Your task to perform on an android device: change alarm snooze length Image 0: 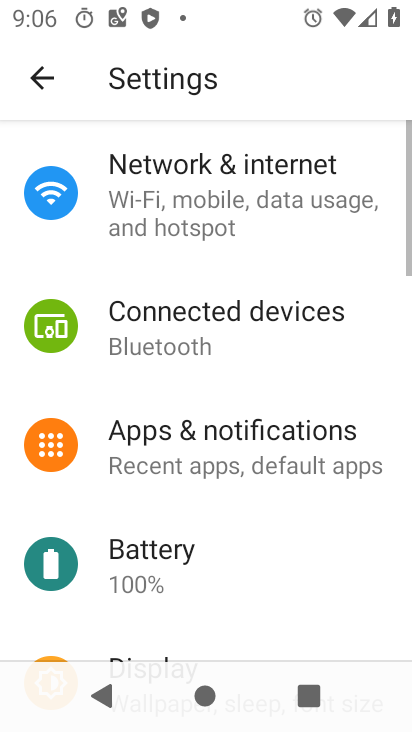
Step 0: press home button
Your task to perform on an android device: change alarm snooze length Image 1: 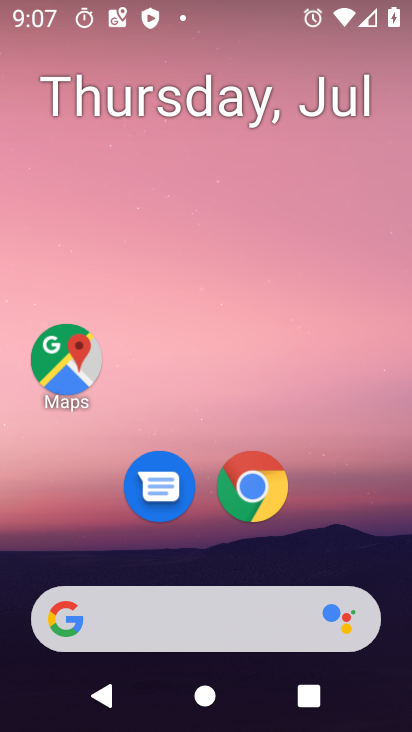
Step 1: drag from (159, 625) to (154, 175)
Your task to perform on an android device: change alarm snooze length Image 2: 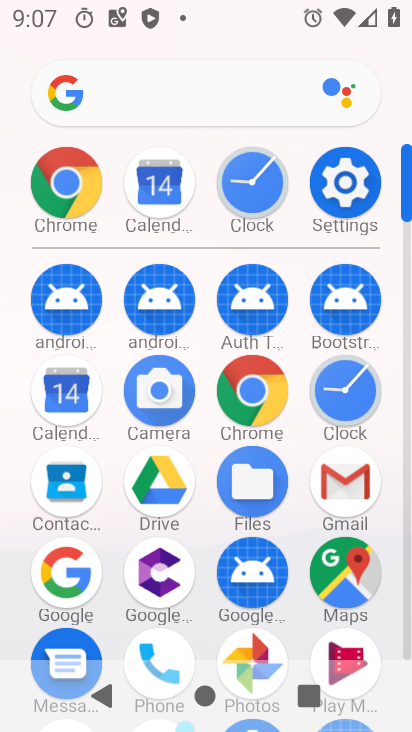
Step 2: click (351, 406)
Your task to perform on an android device: change alarm snooze length Image 3: 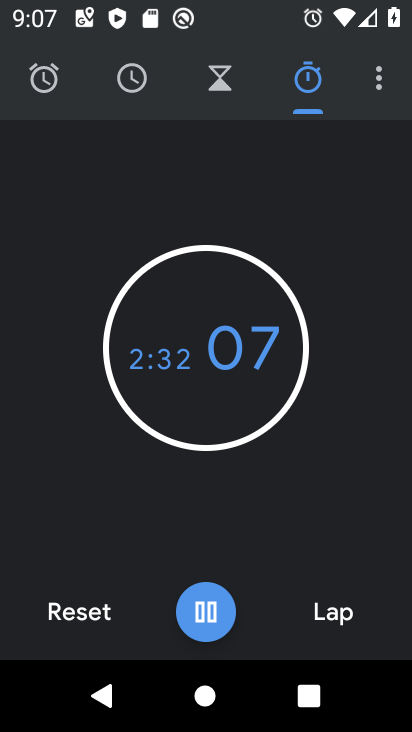
Step 3: click (368, 80)
Your task to perform on an android device: change alarm snooze length Image 4: 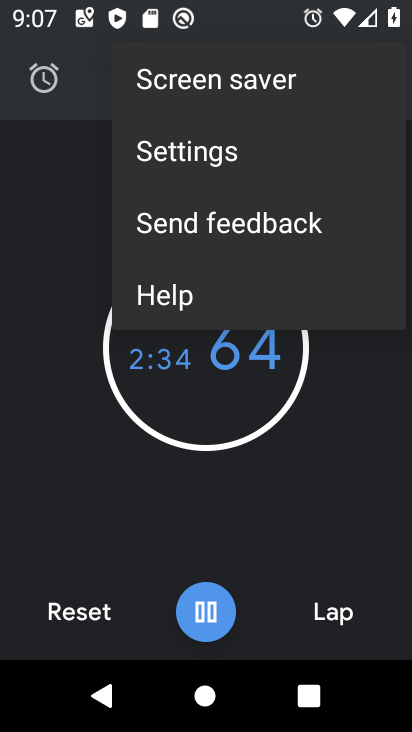
Step 4: click (199, 163)
Your task to perform on an android device: change alarm snooze length Image 5: 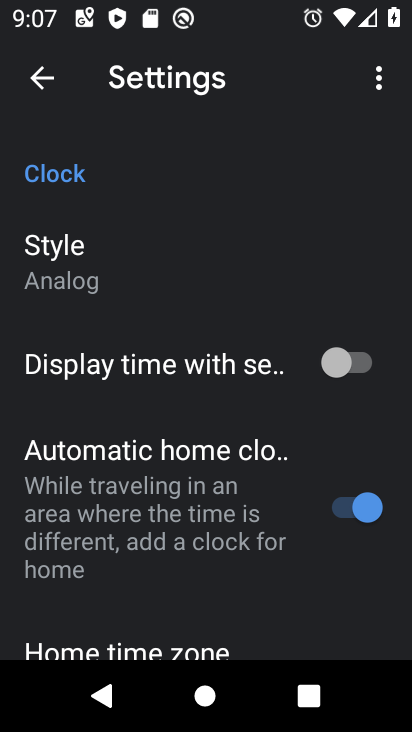
Step 5: drag from (147, 539) to (184, 294)
Your task to perform on an android device: change alarm snooze length Image 6: 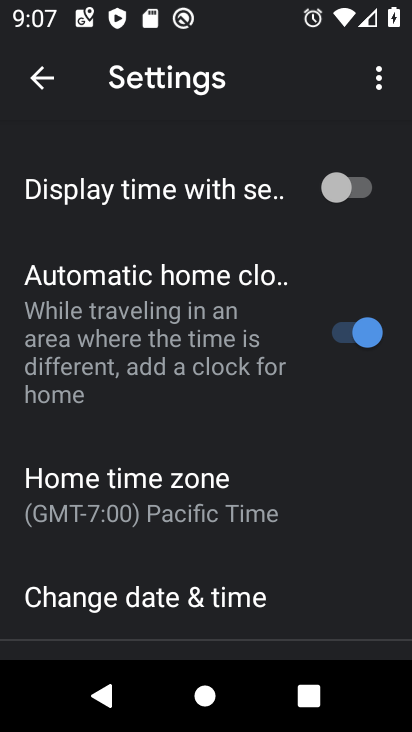
Step 6: drag from (188, 589) to (211, 291)
Your task to perform on an android device: change alarm snooze length Image 7: 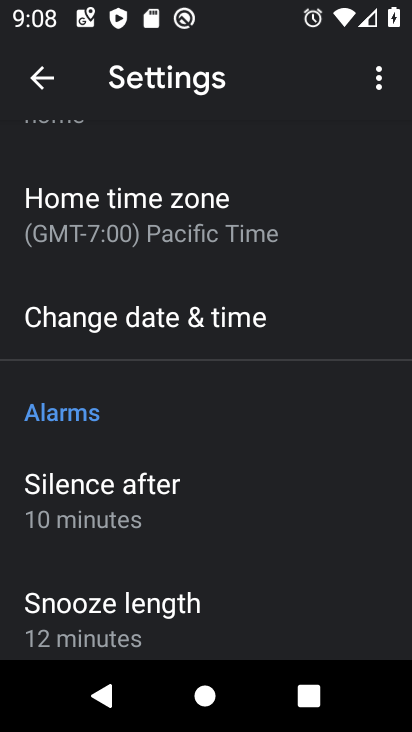
Step 7: click (126, 624)
Your task to perform on an android device: change alarm snooze length Image 8: 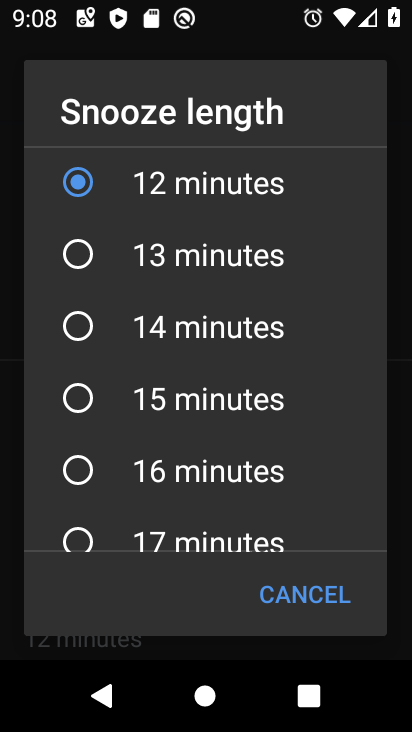
Step 8: click (86, 342)
Your task to perform on an android device: change alarm snooze length Image 9: 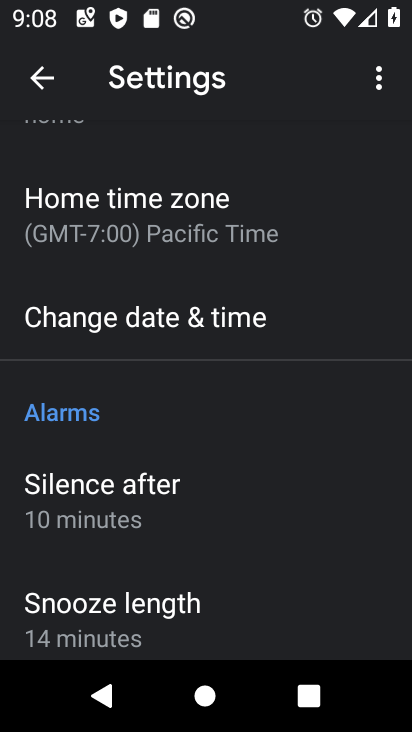
Step 9: task complete